Your task to perform on an android device: remove spam from my inbox in the gmail app Image 0: 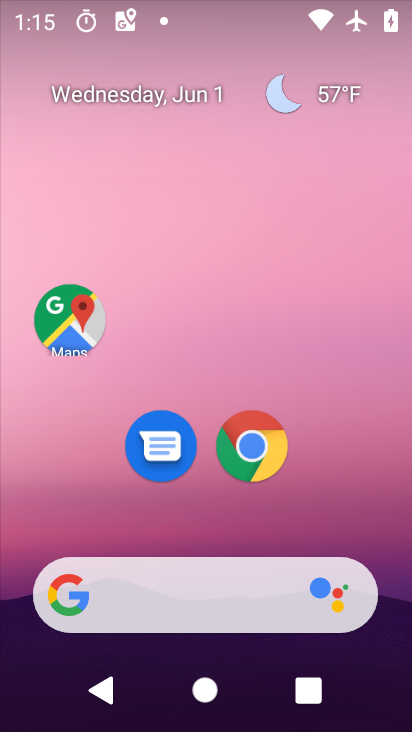
Step 0: drag from (228, 531) to (228, 156)
Your task to perform on an android device: remove spam from my inbox in the gmail app Image 1: 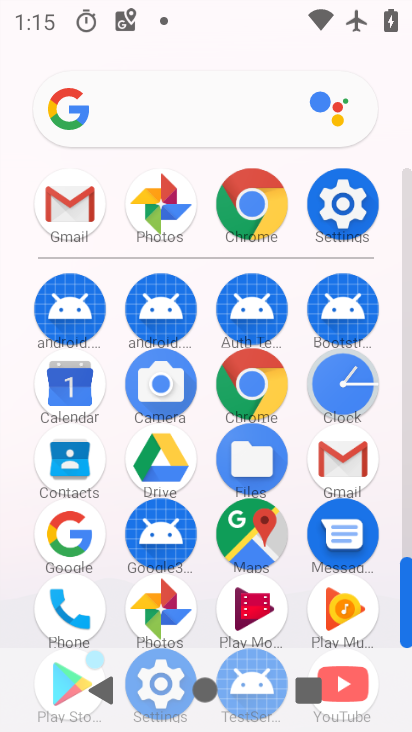
Step 1: drag from (205, 160) to (217, 45)
Your task to perform on an android device: remove spam from my inbox in the gmail app Image 2: 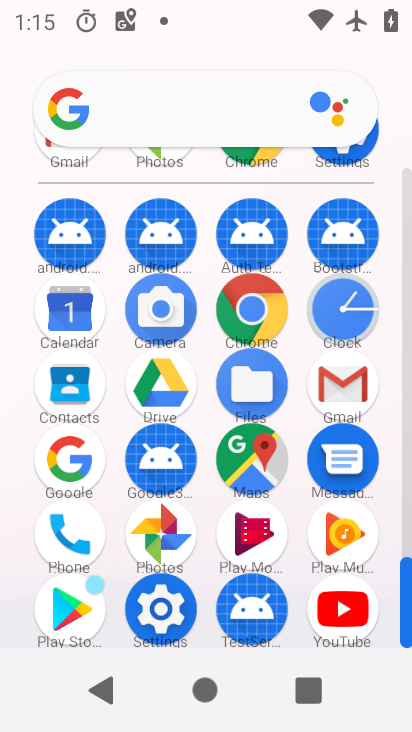
Step 2: click (334, 394)
Your task to perform on an android device: remove spam from my inbox in the gmail app Image 3: 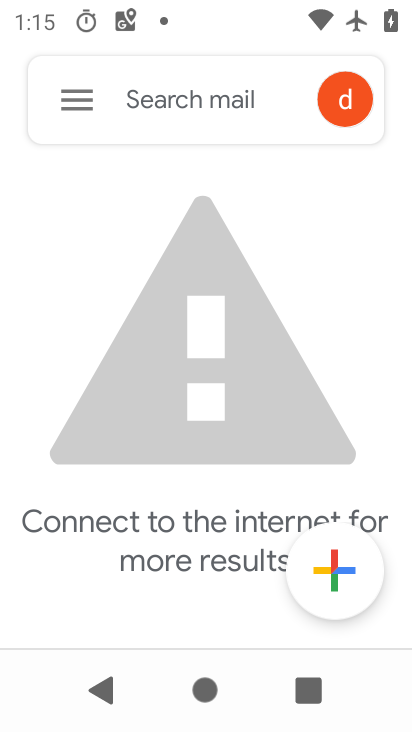
Step 3: click (79, 99)
Your task to perform on an android device: remove spam from my inbox in the gmail app Image 4: 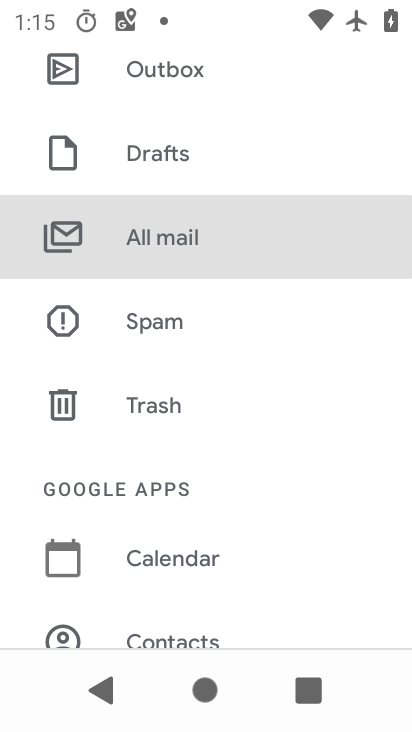
Step 4: click (165, 335)
Your task to perform on an android device: remove spam from my inbox in the gmail app Image 5: 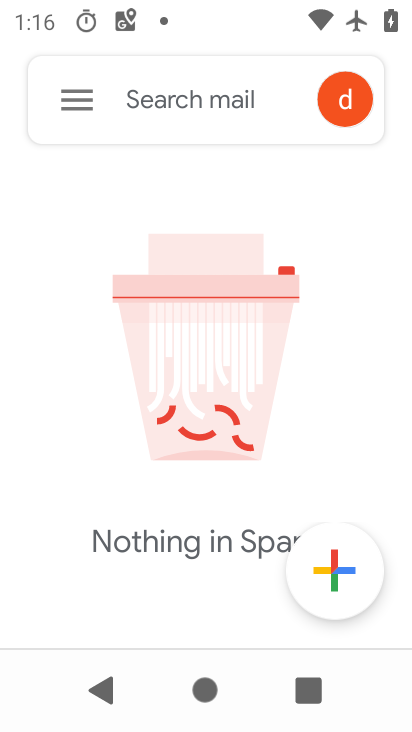
Step 5: task complete